Your task to perform on an android device: Open calendar and show me the first week of next month Image 0: 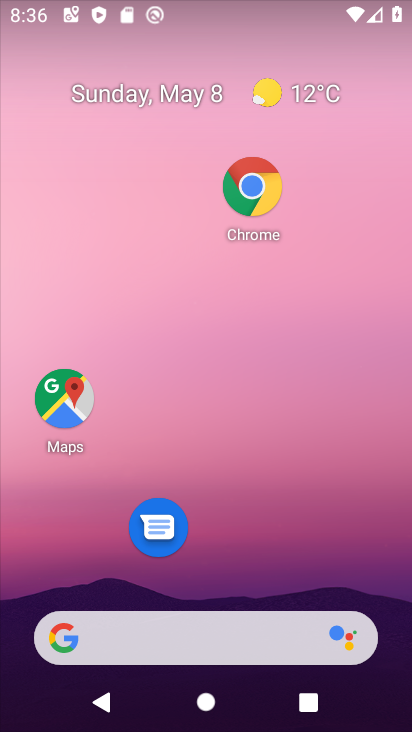
Step 0: drag from (320, 559) to (346, 248)
Your task to perform on an android device: Open calendar and show me the first week of next month Image 1: 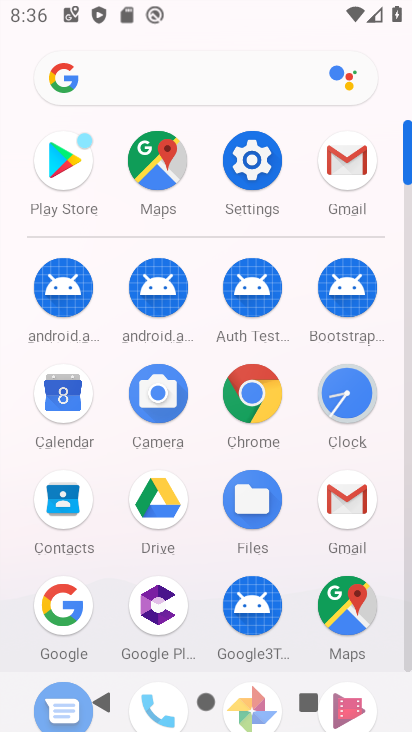
Step 1: click (40, 391)
Your task to perform on an android device: Open calendar and show me the first week of next month Image 2: 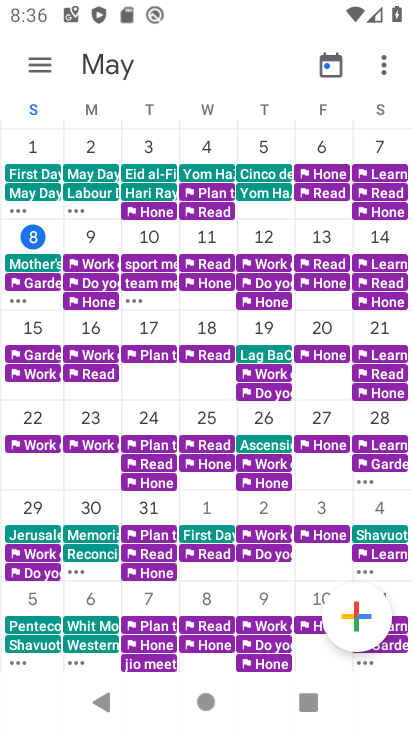
Step 2: drag from (371, 449) to (22, 503)
Your task to perform on an android device: Open calendar and show me the first week of next month Image 3: 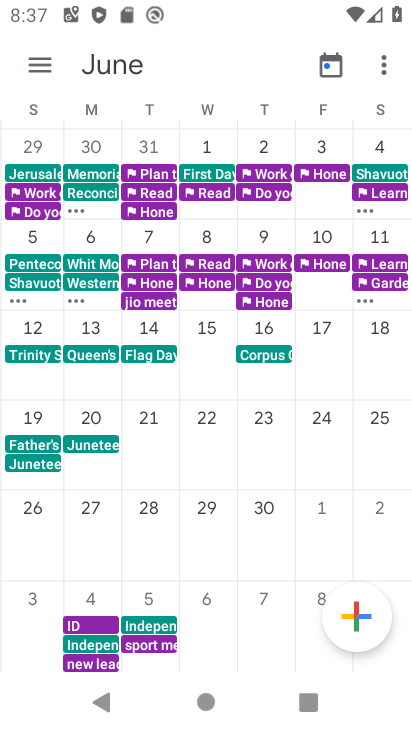
Step 3: click (24, 146)
Your task to perform on an android device: Open calendar and show me the first week of next month Image 4: 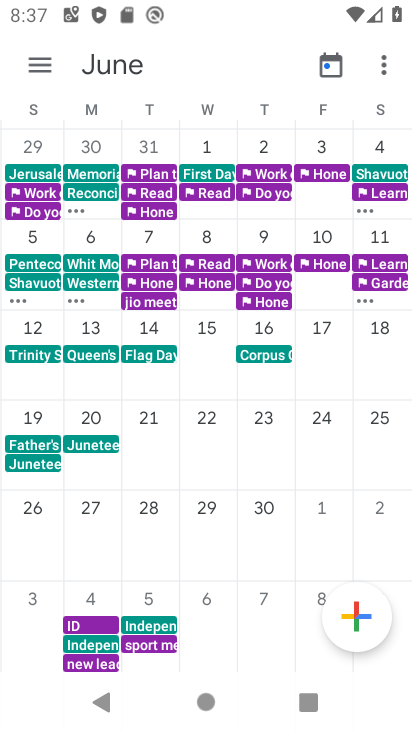
Step 4: task complete